Your task to perform on an android device: Do I have any events this weekend? Image 0: 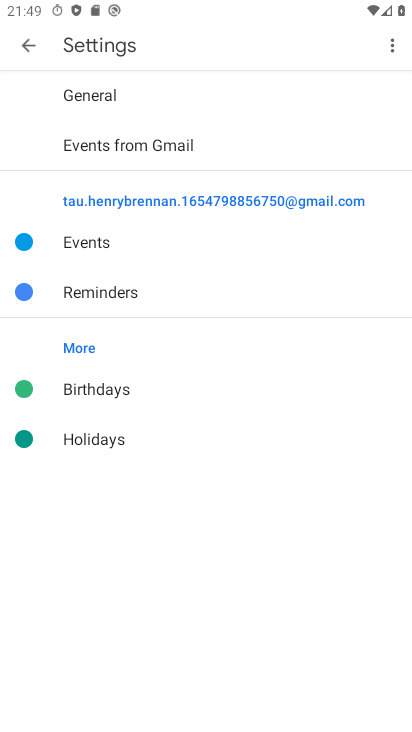
Step 0: press back button
Your task to perform on an android device: Do I have any events this weekend? Image 1: 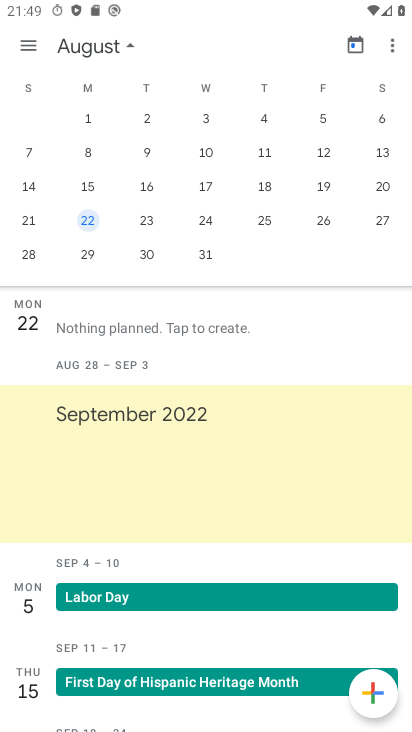
Step 1: press back button
Your task to perform on an android device: Do I have any events this weekend? Image 2: 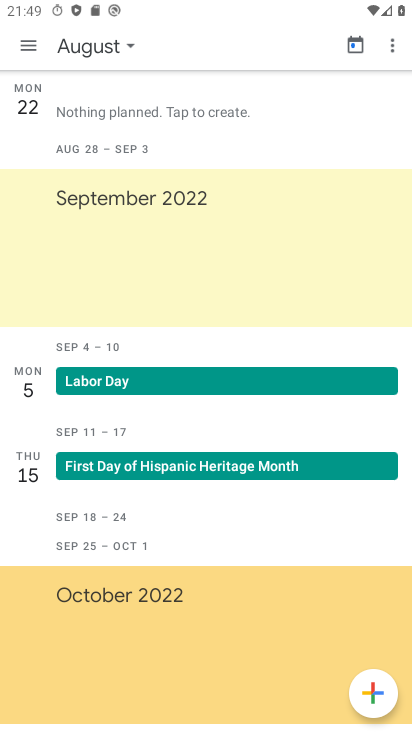
Step 2: press back button
Your task to perform on an android device: Do I have any events this weekend? Image 3: 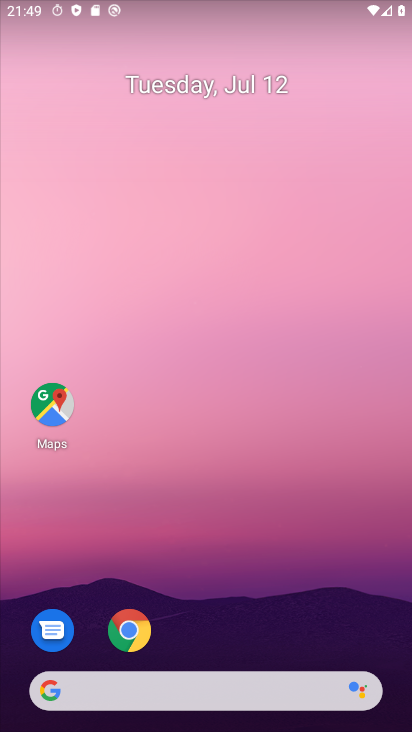
Step 3: drag from (223, 620) to (328, 0)
Your task to perform on an android device: Do I have any events this weekend? Image 4: 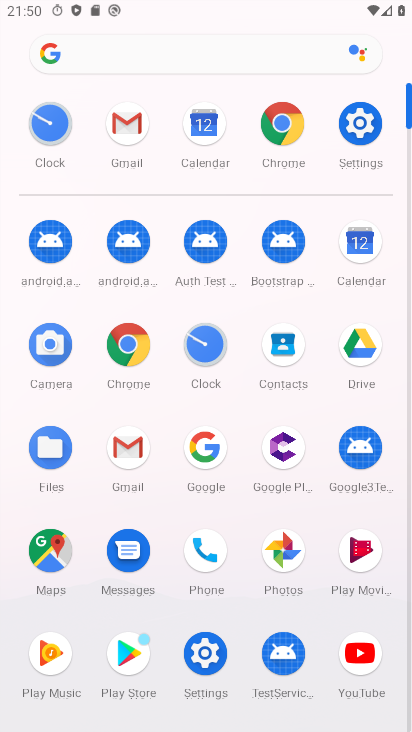
Step 4: click (370, 244)
Your task to perform on an android device: Do I have any events this weekend? Image 5: 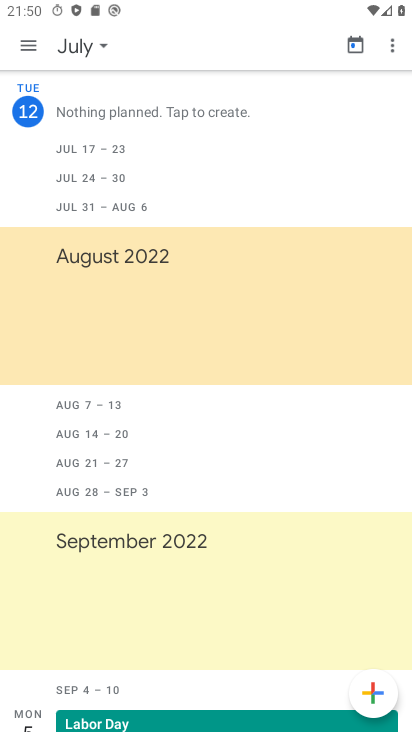
Step 5: click (87, 49)
Your task to perform on an android device: Do I have any events this weekend? Image 6: 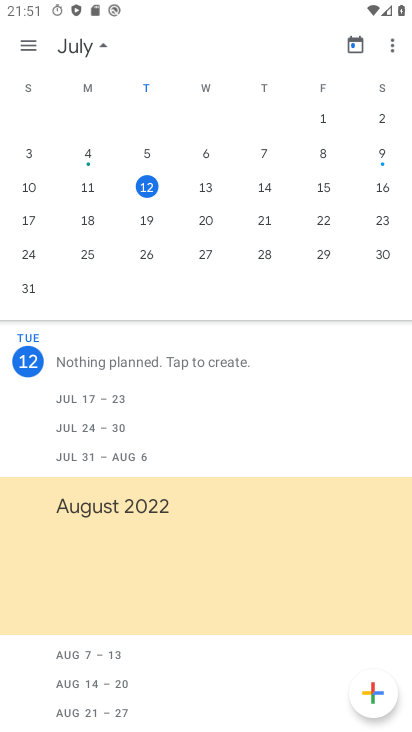
Step 6: click (379, 187)
Your task to perform on an android device: Do I have any events this weekend? Image 7: 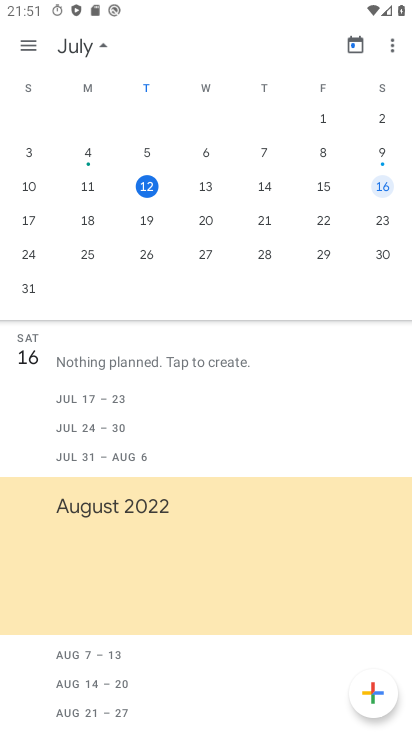
Step 7: task complete